Your task to perform on an android device: toggle data saver in the chrome app Image 0: 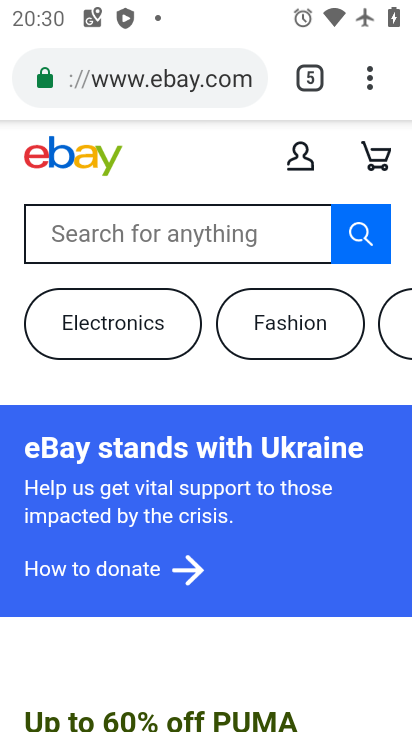
Step 0: press home button
Your task to perform on an android device: toggle data saver in the chrome app Image 1: 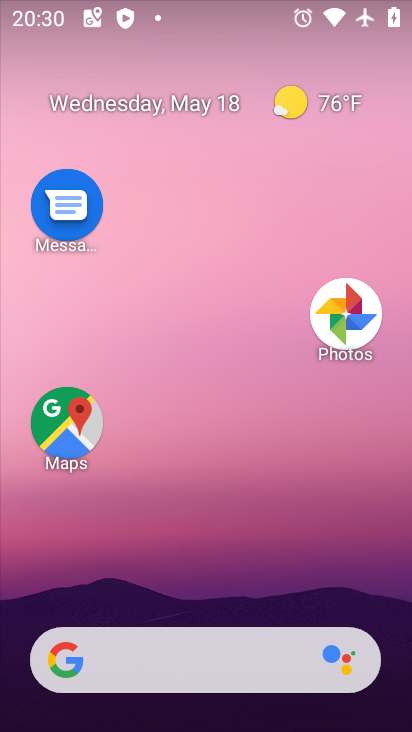
Step 1: drag from (199, 616) to (165, 87)
Your task to perform on an android device: toggle data saver in the chrome app Image 2: 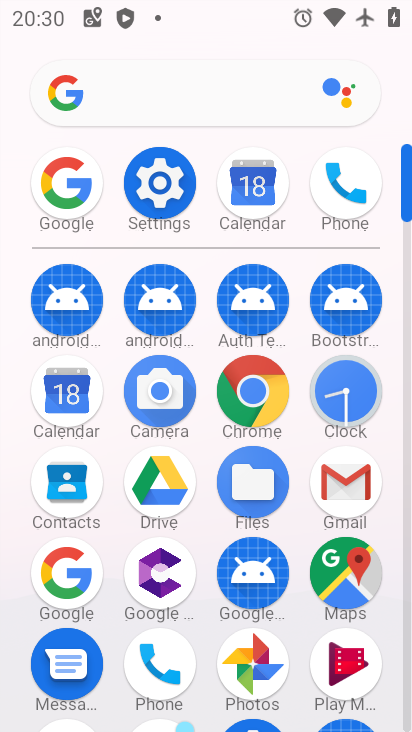
Step 2: click (266, 391)
Your task to perform on an android device: toggle data saver in the chrome app Image 3: 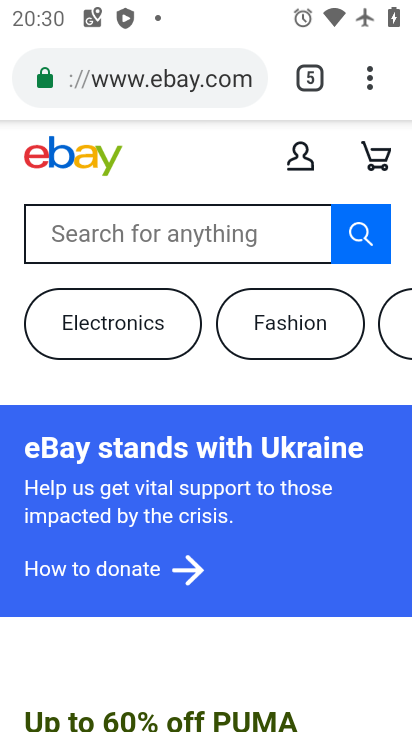
Step 3: click (363, 86)
Your task to perform on an android device: toggle data saver in the chrome app Image 4: 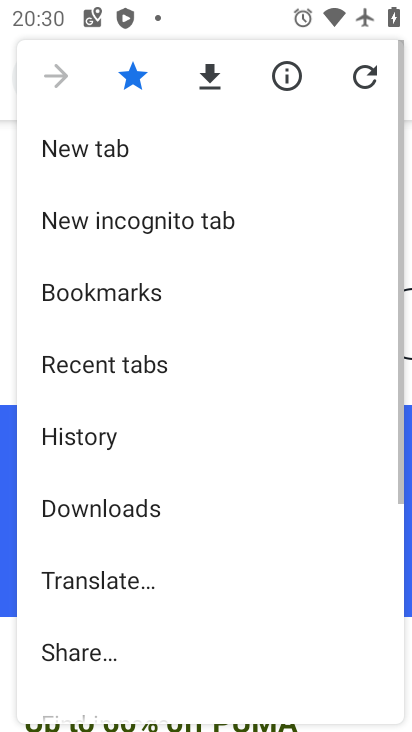
Step 4: drag from (196, 612) to (184, 193)
Your task to perform on an android device: toggle data saver in the chrome app Image 5: 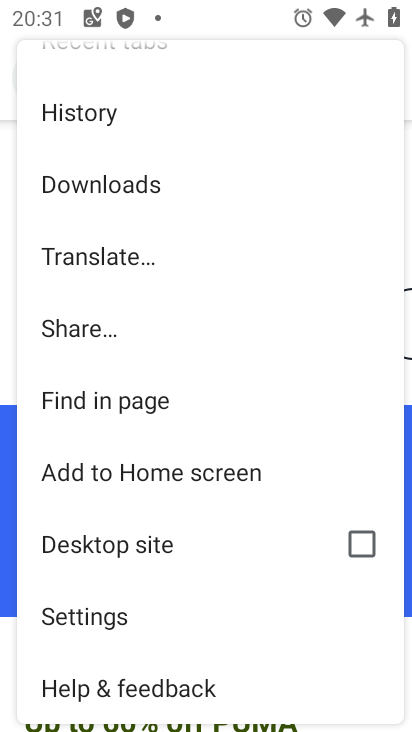
Step 5: click (183, 619)
Your task to perform on an android device: toggle data saver in the chrome app Image 6: 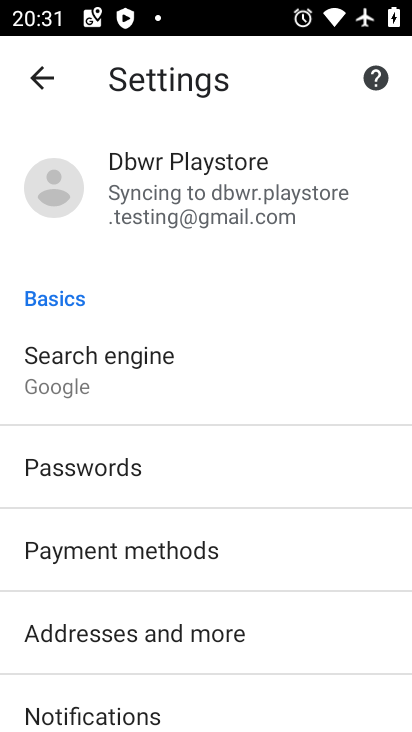
Step 6: drag from (206, 626) to (187, 146)
Your task to perform on an android device: toggle data saver in the chrome app Image 7: 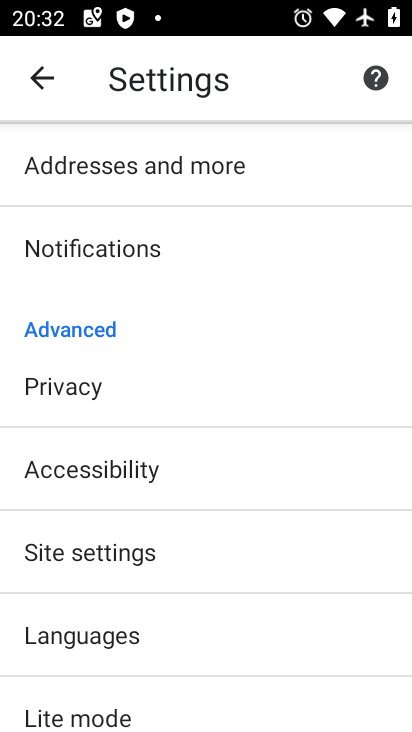
Step 7: click (122, 696)
Your task to perform on an android device: toggle data saver in the chrome app Image 8: 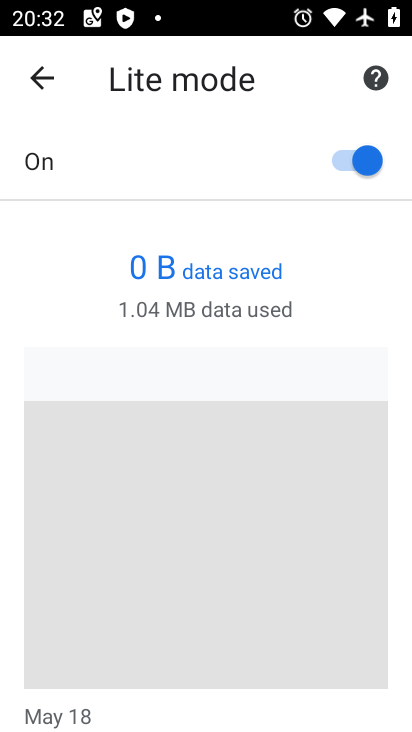
Step 8: task complete